Your task to perform on an android device: open a new tab in the chrome app Image 0: 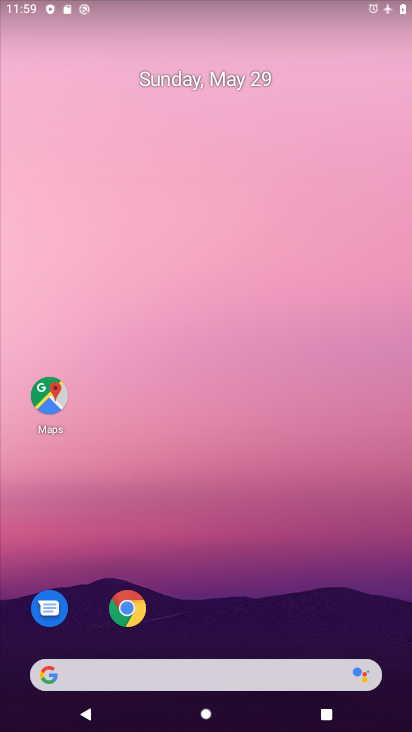
Step 0: drag from (217, 657) to (139, 110)
Your task to perform on an android device: open a new tab in the chrome app Image 1: 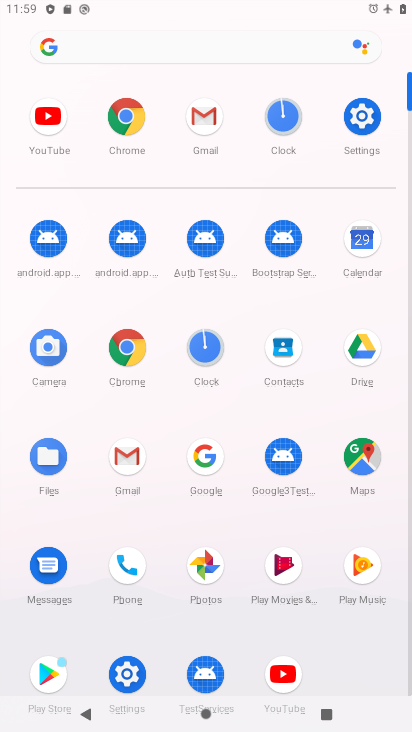
Step 1: click (119, 362)
Your task to perform on an android device: open a new tab in the chrome app Image 2: 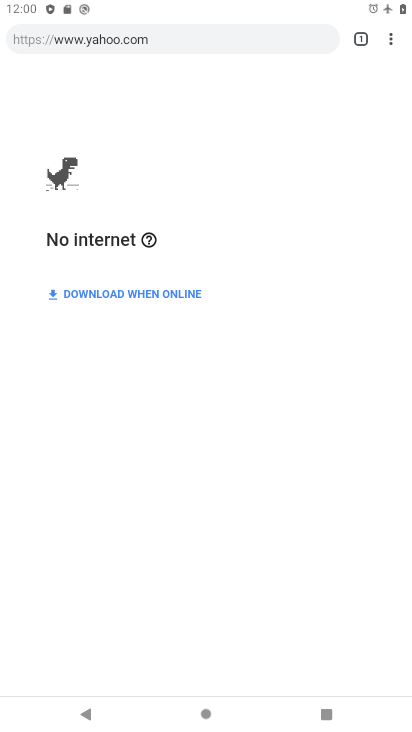
Step 2: click (364, 35)
Your task to perform on an android device: open a new tab in the chrome app Image 3: 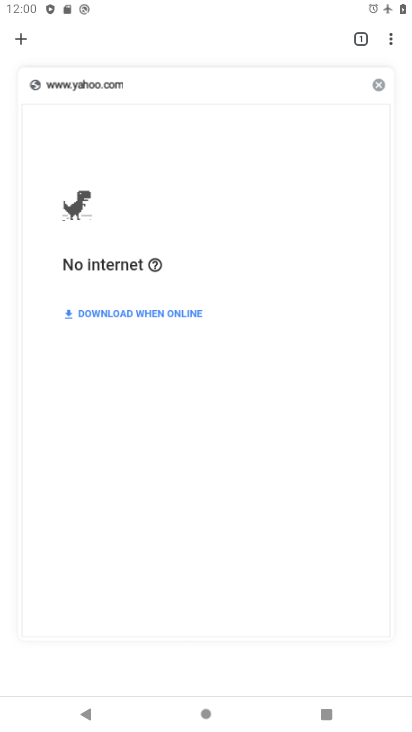
Step 3: click (23, 46)
Your task to perform on an android device: open a new tab in the chrome app Image 4: 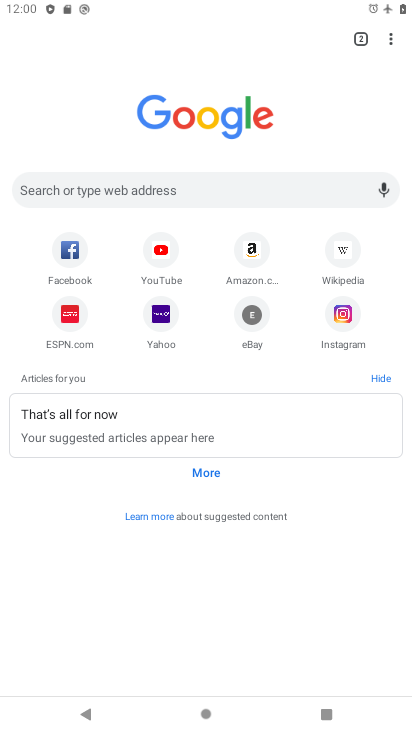
Step 4: task complete